Your task to perform on an android device: change notifications settings Image 0: 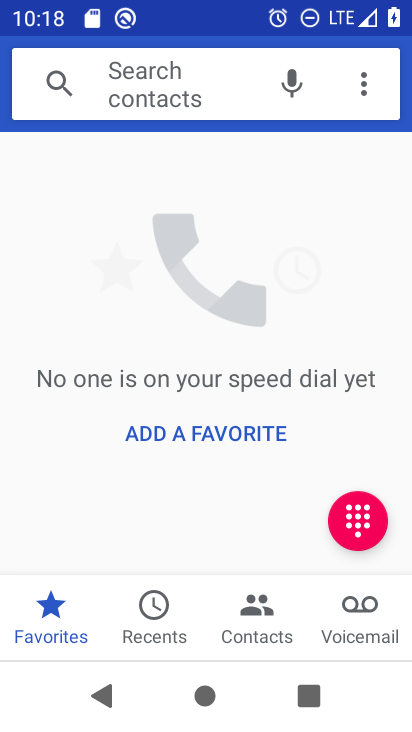
Step 0: press home button
Your task to perform on an android device: change notifications settings Image 1: 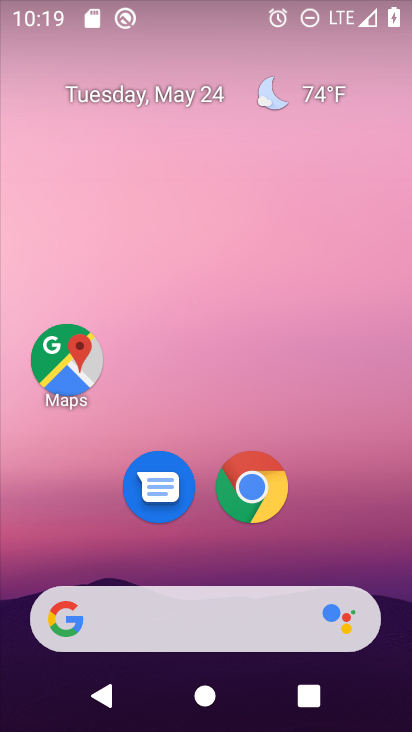
Step 1: drag from (330, 574) to (311, 3)
Your task to perform on an android device: change notifications settings Image 2: 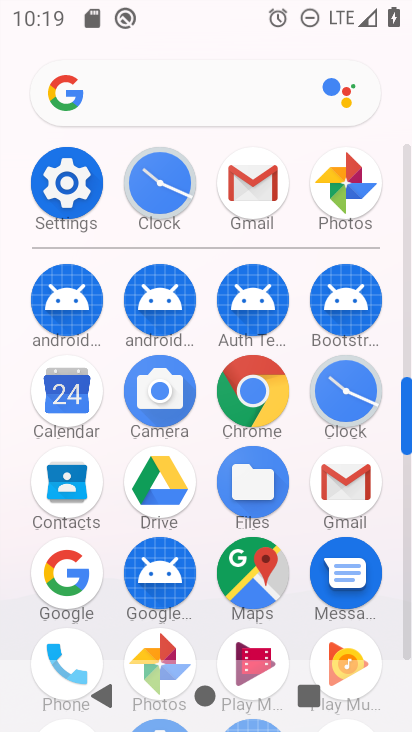
Step 2: click (63, 192)
Your task to perform on an android device: change notifications settings Image 3: 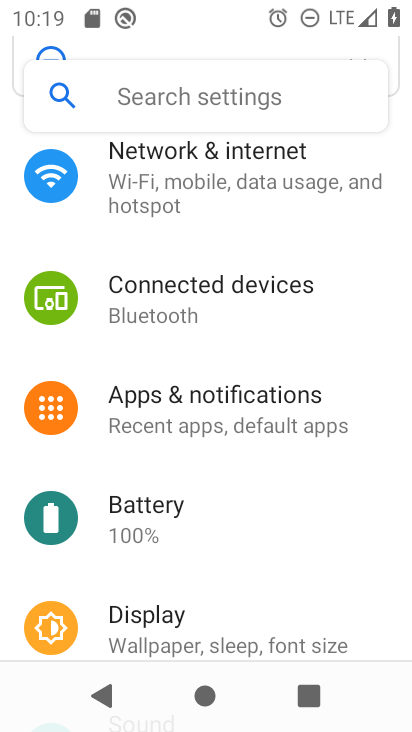
Step 3: click (216, 418)
Your task to perform on an android device: change notifications settings Image 4: 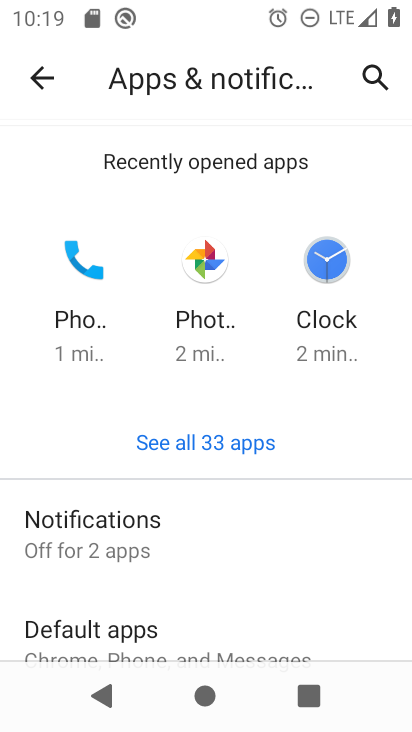
Step 4: click (123, 543)
Your task to perform on an android device: change notifications settings Image 5: 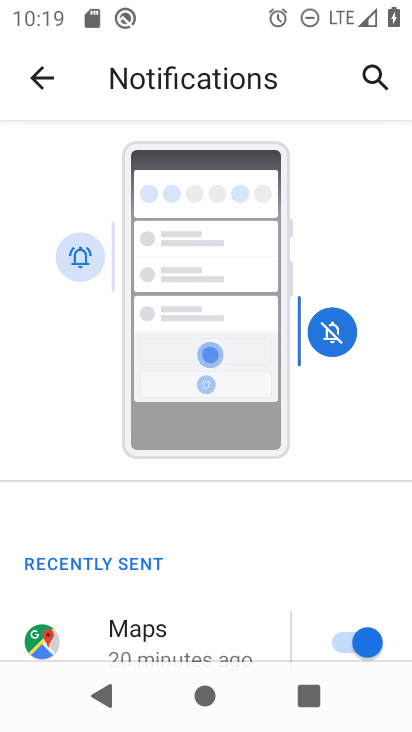
Step 5: drag from (177, 578) to (165, 8)
Your task to perform on an android device: change notifications settings Image 6: 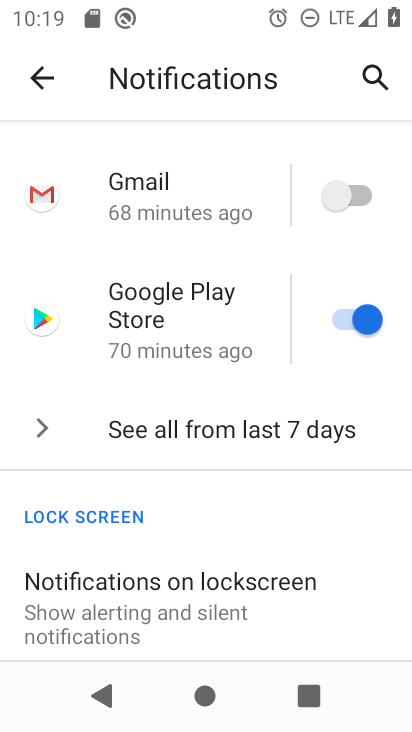
Step 6: drag from (185, 515) to (155, 98)
Your task to perform on an android device: change notifications settings Image 7: 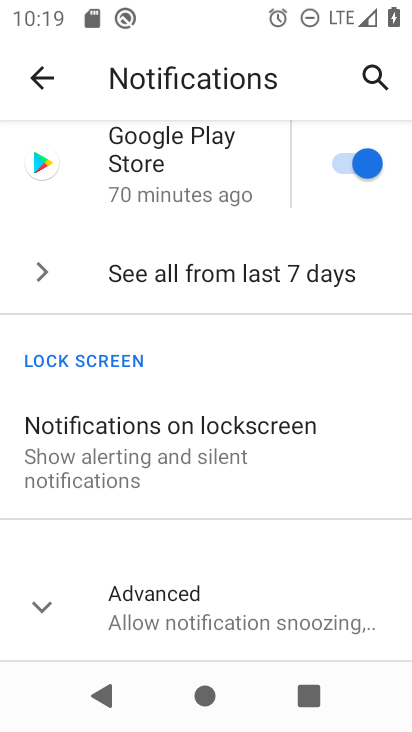
Step 7: click (203, 283)
Your task to perform on an android device: change notifications settings Image 8: 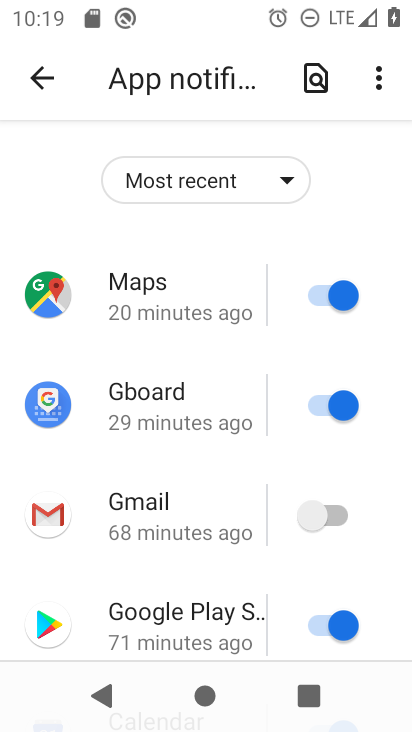
Step 8: click (287, 179)
Your task to perform on an android device: change notifications settings Image 9: 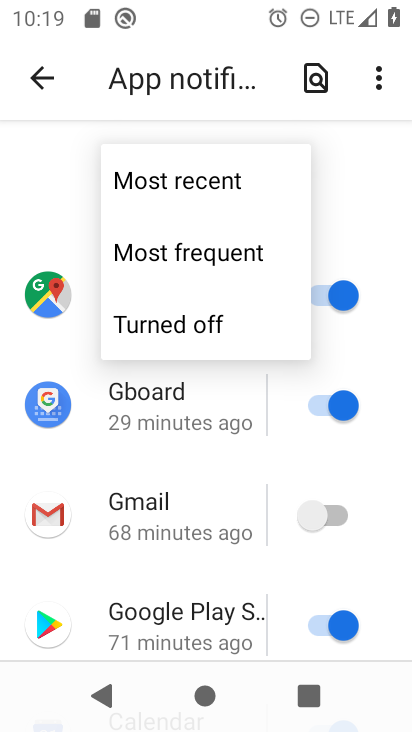
Step 9: click (208, 273)
Your task to perform on an android device: change notifications settings Image 10: 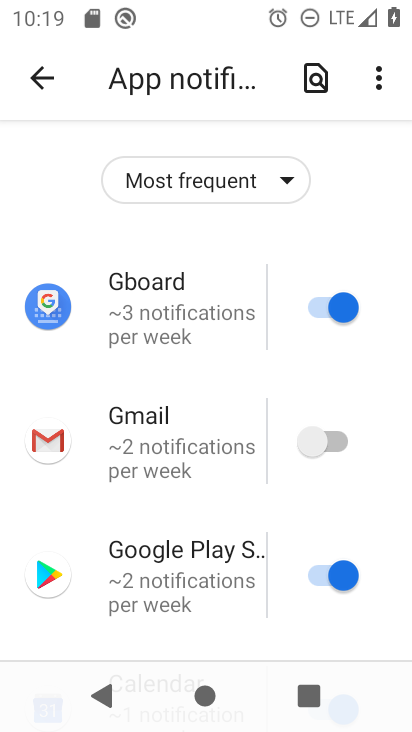
Step 10: task complete